Your task to perform on an android device: Show me popular games on the Play Store Image 0: 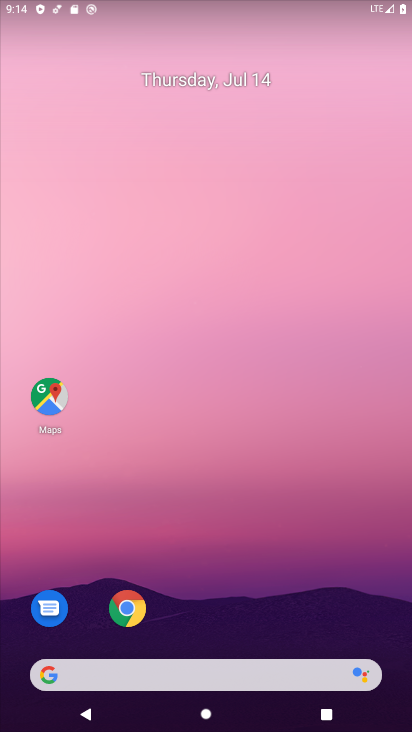
Step 0: drag from (199, 637) to (271, 78)
Your task to perform on an android device: Show me popular games on the Play Store Image 1: 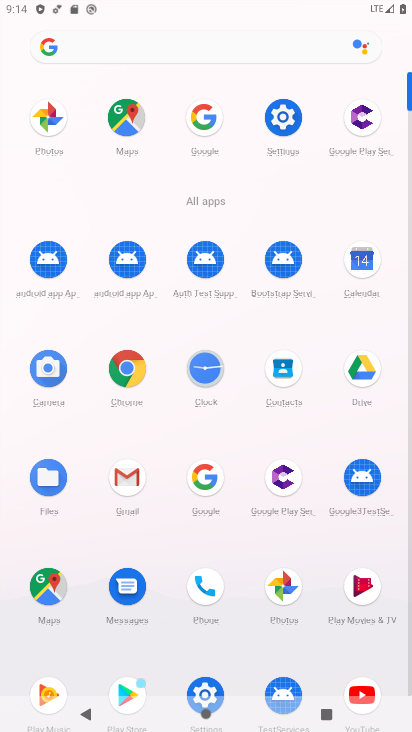
Step 1: drag from (153, 646) to (160, 452)
Your task to perform on an android device: Show me popular games on the Play Store Image 2: 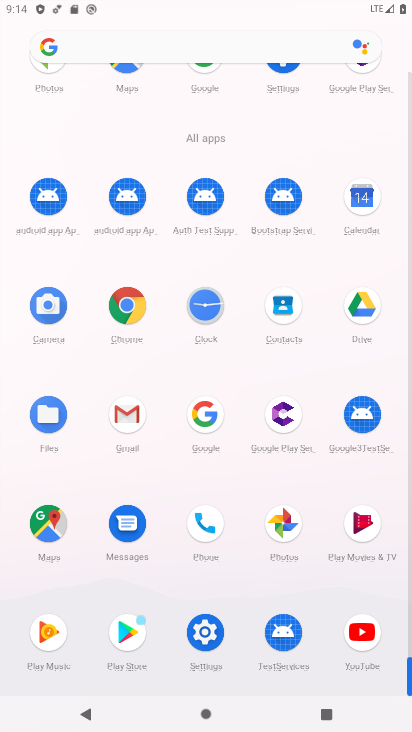
Step 2: click (121, 638)
Your task to perform on an android device: Show me popular games on the Play Store Image 3: 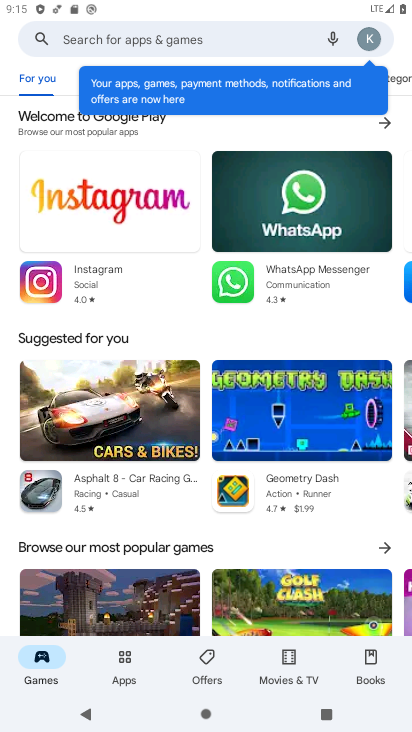
Step 3: drag from (157, 596) to (274, 24)
Your task to perform on an android device: Show me popular games on the Play Store Image 4: 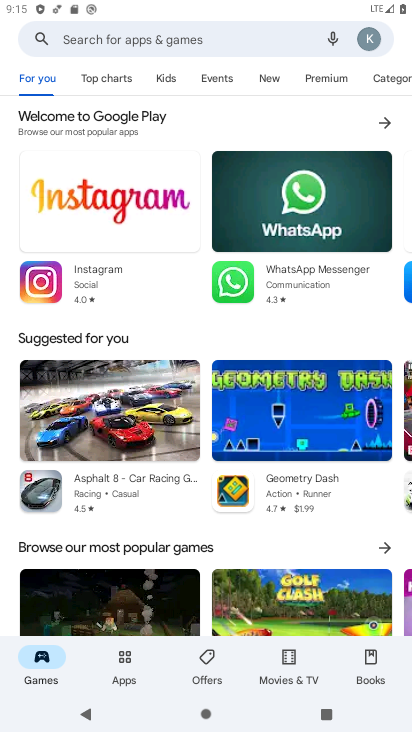
Step 4: drag from (205, 635) to (299, 123)
Your task to perform on an android device: Show me popular games on the Play Store Image 5: 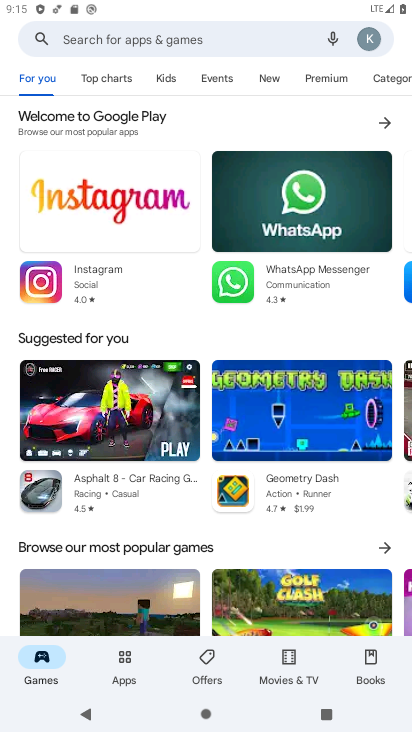
Step 5: click (386, 539)
Your task to perform on an android device: Show me popular games on the Play Store Image 6: 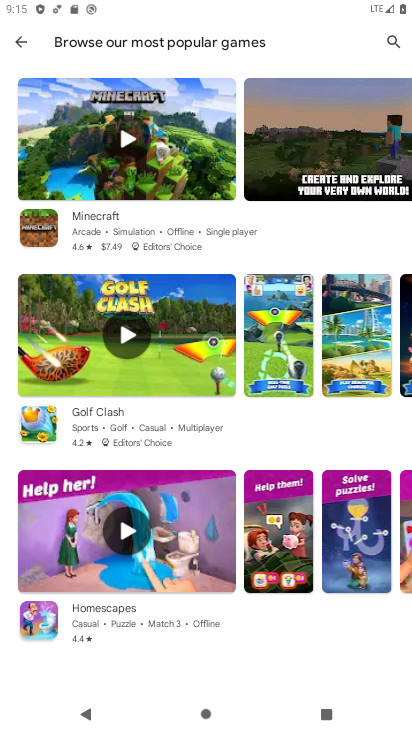
Step 6: task complete